Your task to perform on an android device: show emergency info Image 0: 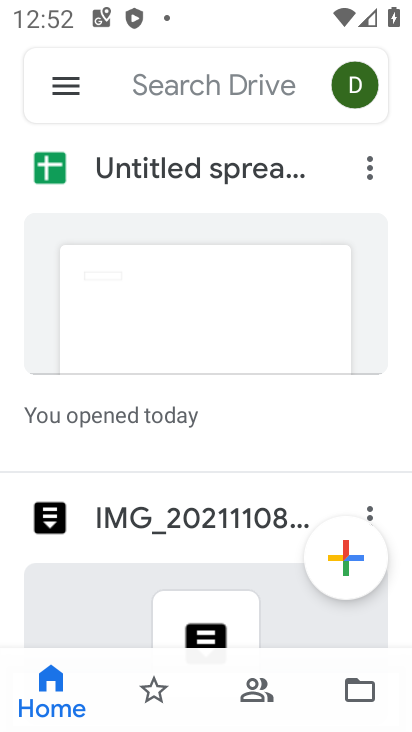
Step 0: press home button
Your task to perform on an android device: show emergency info Image 1: 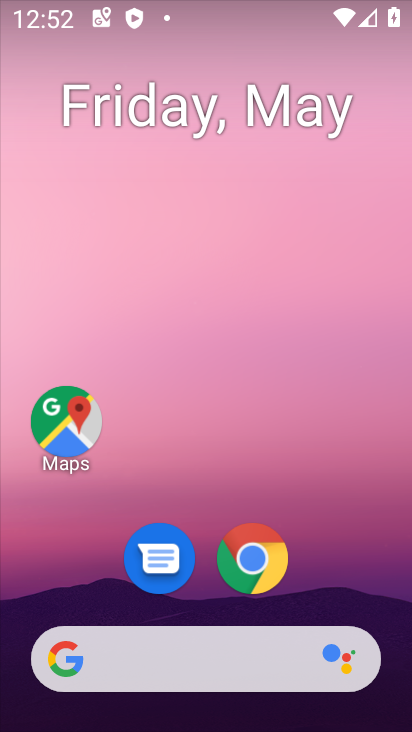
Step 1: drag from (376, 592) to (216, 115)
Your task to perform on an android device: show emergency info Image 2: 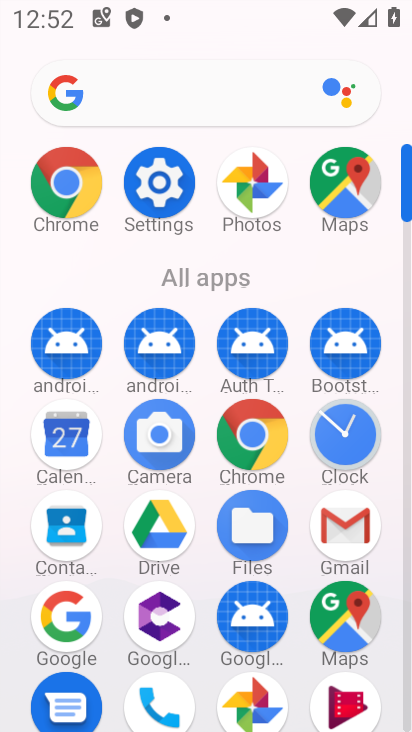
Step 2: click (161, 181)
Your task to perform on an android device: show emergency info Image 3: 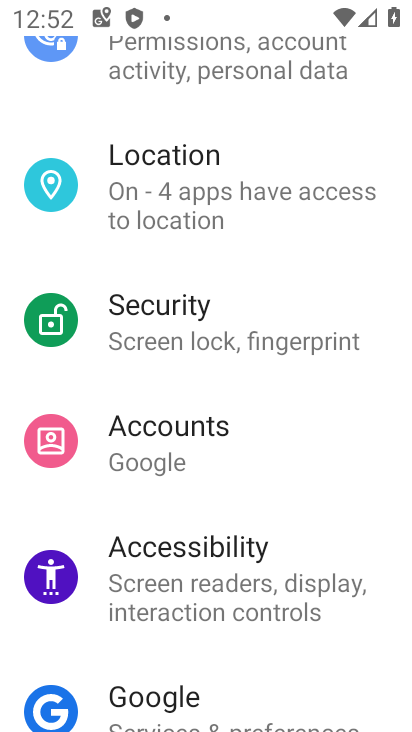
Step 3: drag from (265, 252) to (265, 103)
Your task to perform on an android device: show emergency info Image 4: 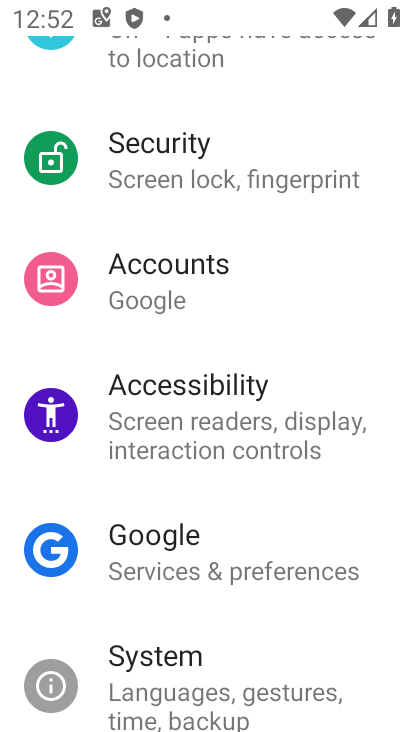
Step 4: drag from (268, 662) to (285, 279)
Your task to perform on an android device: show emergency info Image 5: 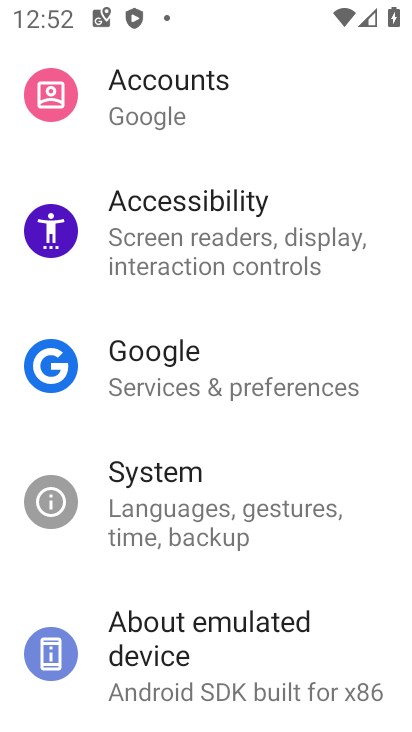
Step 5: click (254, 635)
Your task to perform on an android device: show emergency info Image 6: 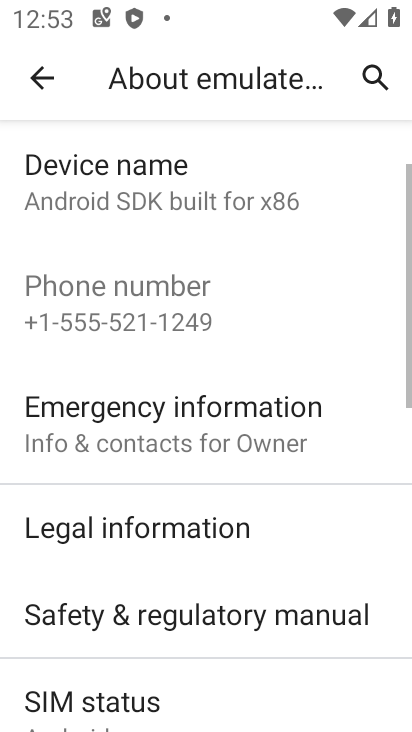
Step 6: click (236, 438)
Your task to perform on an android device: show emergency info Image 7: 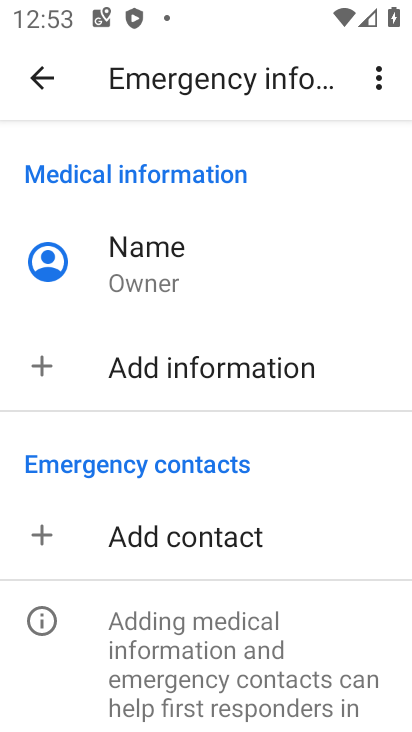
Step 7: task complete